Your task to perform on an android device: delete browsing data in the chrome app Image 0: 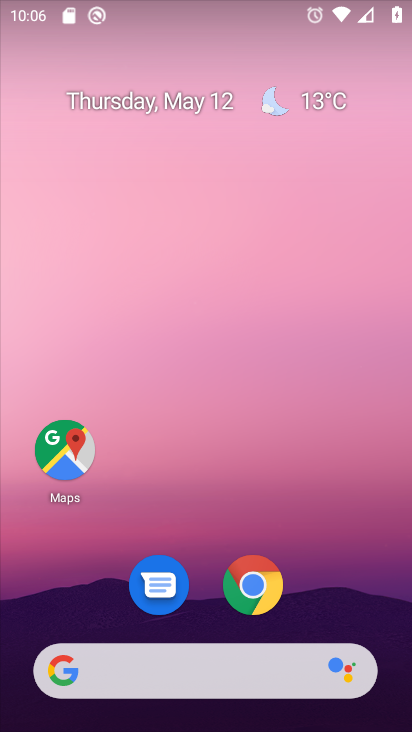
Step 0: click (248, 570)
Your task to perform on an android device: delete browsing data in the chrome app Image 1: 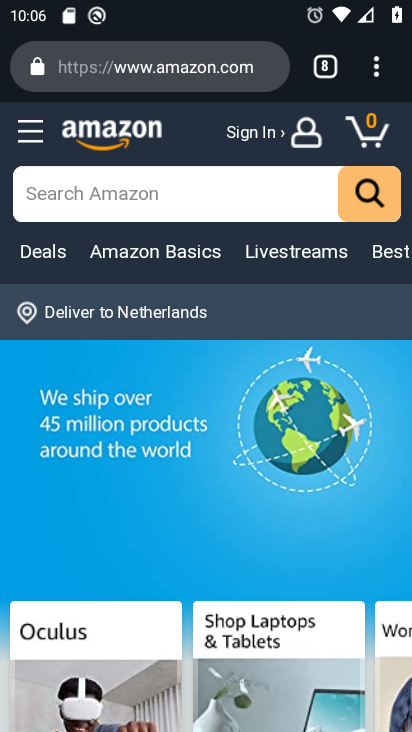
Step 1: click (376, 71)
Your task to perform on an android device: delete browsing data in the chrome app Image 2: 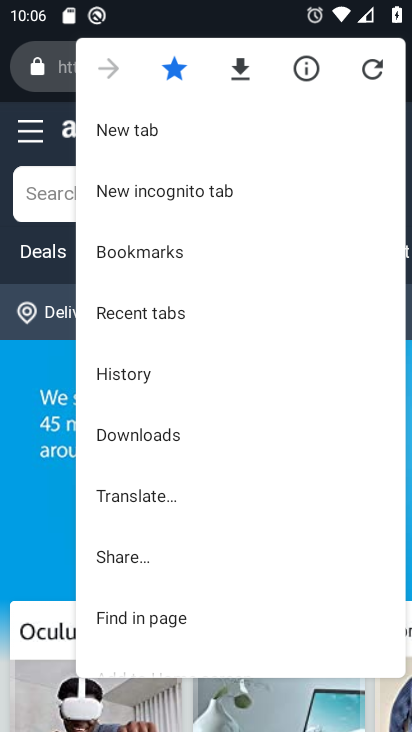
Step 2: click (161, 370)
Your task to perform on an android device: delete browsing data in the chrome app Image 3: 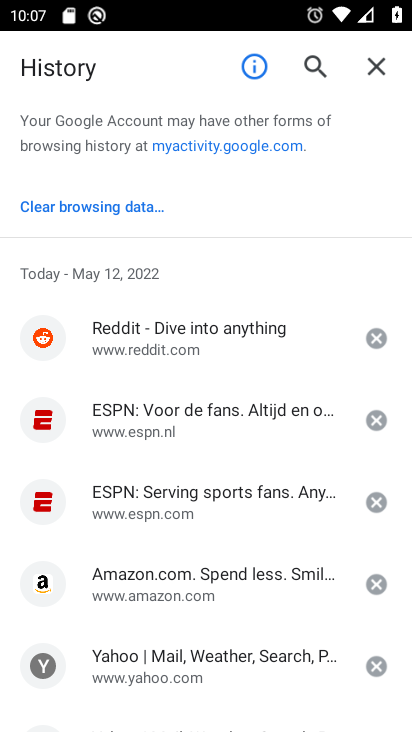
Step 3: click (140, 203)
Your task to perform on an android device: delete browsing data in the chrome app Image 4: 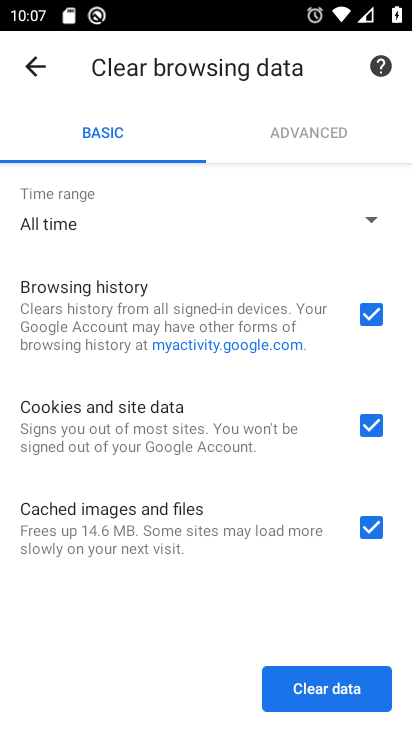
Step 4: click (340, 689)
Your task to perform on an android device: delete browsing data in the chrome app Image 5: 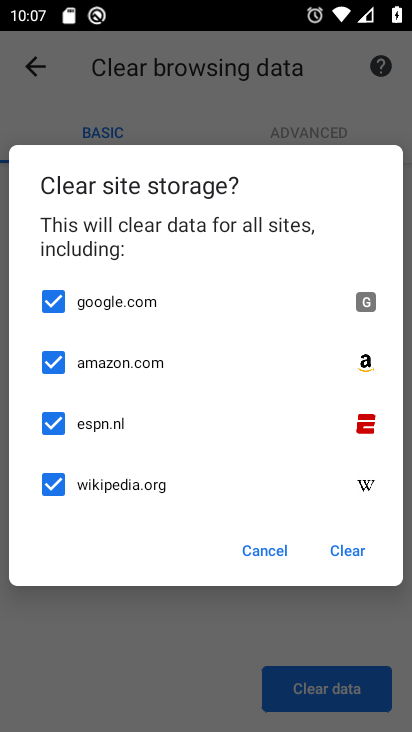
Step 5: click (353, 542)
Your task to perform on an android device: delete browsing data in the chrome app Image 6: 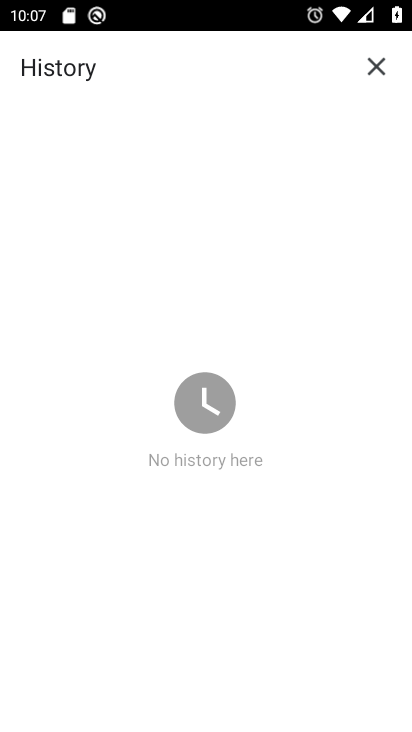
Step 6: task complete